Your task to perform on an android device: turn on notifications settings in the gmail app Image 0: 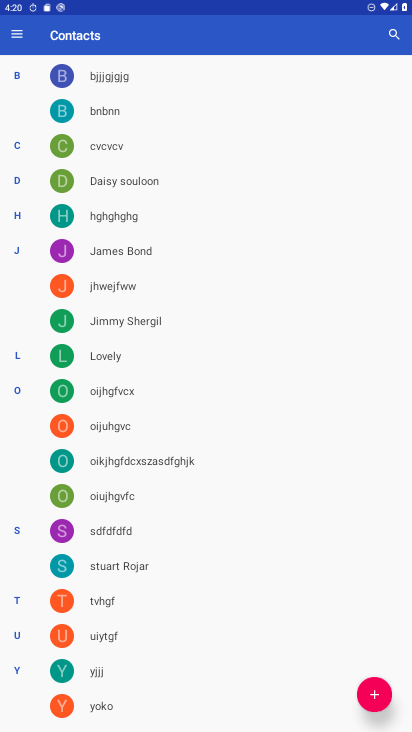
Step 0: press home button
Your task to perform on an android device: turn on notifications settings in the gmail app Image 1: 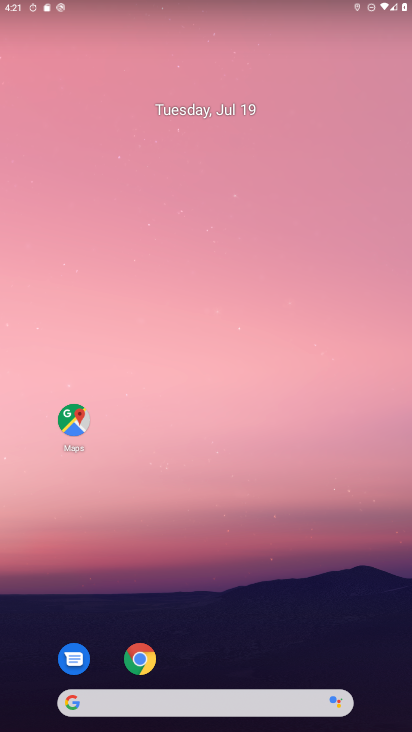
Step 1: drag from (301, 547) to (319, 46)
Your task to perform on an android device: turn on notifications settings in the gmail app Image 2: 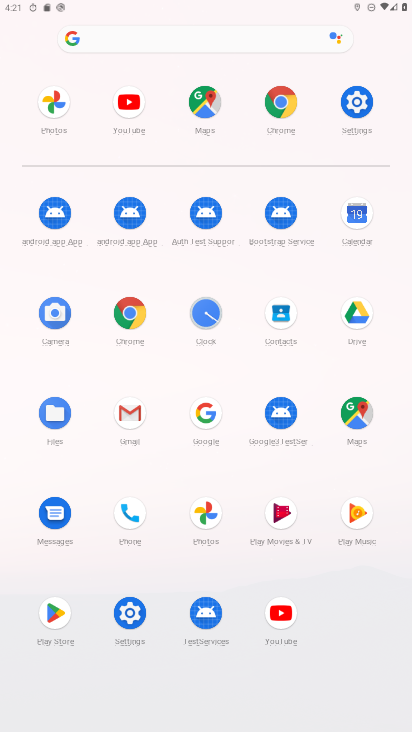
Step 2: click (124, 416)
Your task to perform on an android device: turn on notifications settings in the gmail app Image 3: 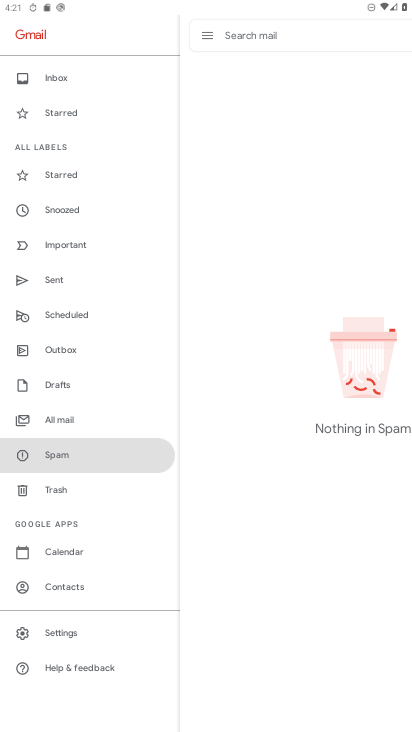
Step 3: click (58, 630)
Your task to perform on an android device: turn on notifications settings in the gmail app Image 4: 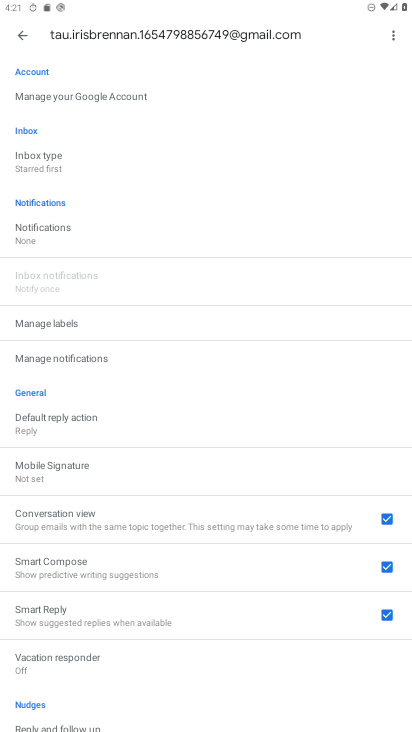
Step 4: click (46, 232)
Your task to perform on an android device: turn on notifications settings in the gmail app Image 5: 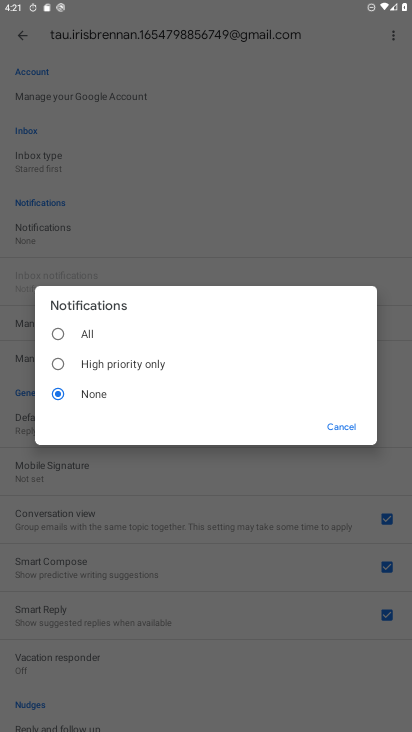
Step 5: click (70, 329)
Your task to perform on an android device: turn on notifications settings in the gmail app Image 6: 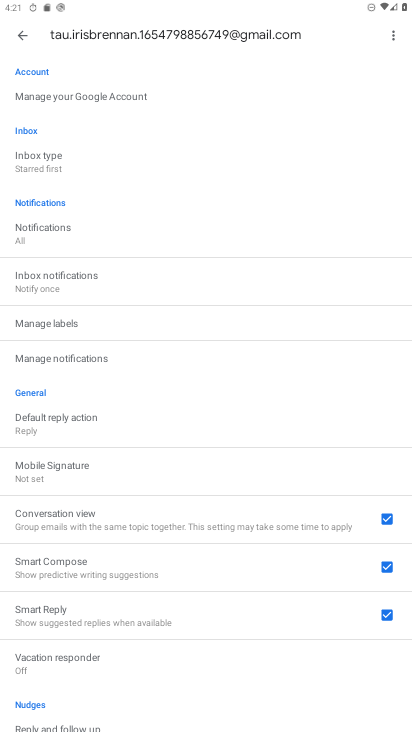
Step 6: task complete